Your task to perform on an android device: toggle show notifications on the lock screen Image 0: 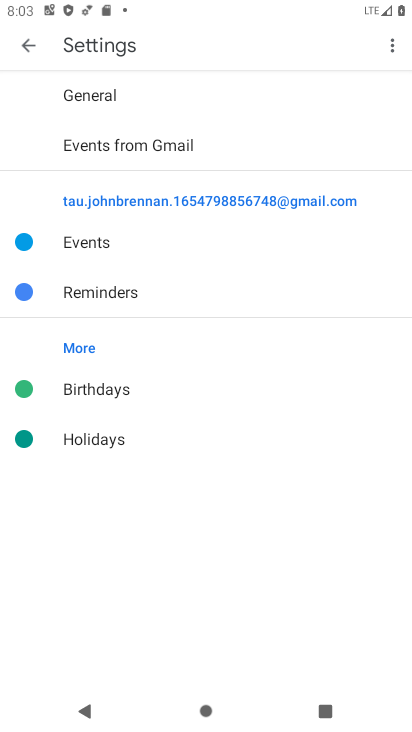
Step 0: press home button
Your task to perform on an android device: toggle show notifications on the lock screen Image 1: 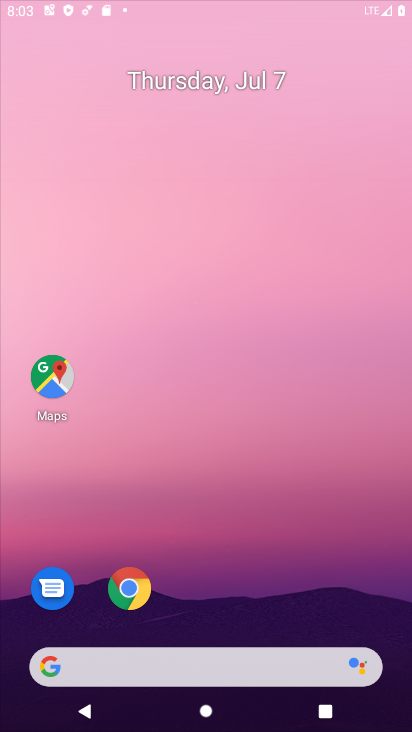
Step 1: drag from (180, 533) to (172, 89)
Your task to perform on an android device: toggle show notifications on the lock screen Image 2: 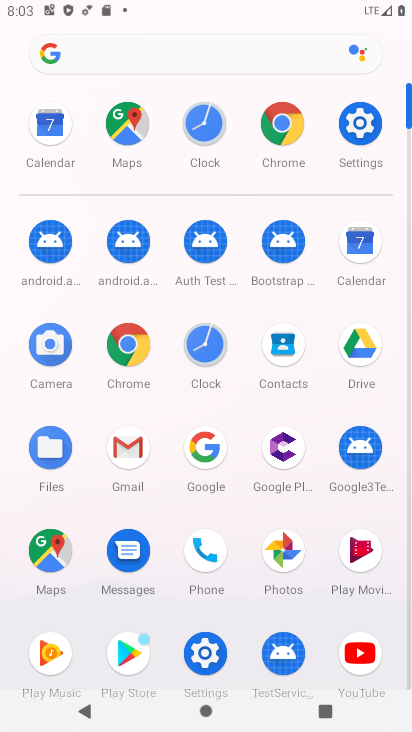
Step 2: click (361, 106)
Your task to perform on an android device: toggle show notifications on the lock screen Image 3: 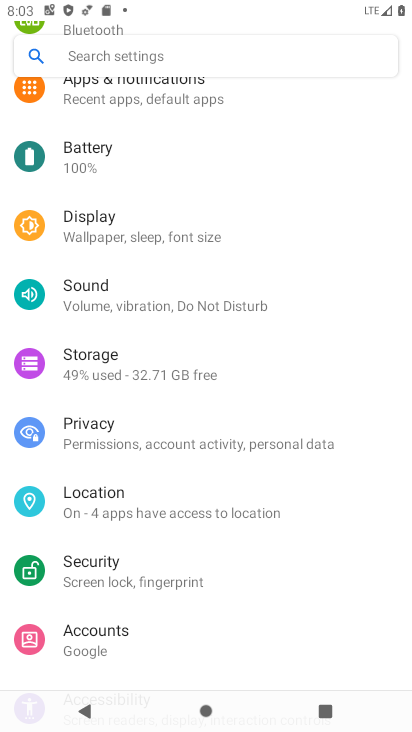
Step 3: drag from (155, 136) to (223, 518)
Your task to perform on an android device: toggle show notifications on the lock screen Image 4: 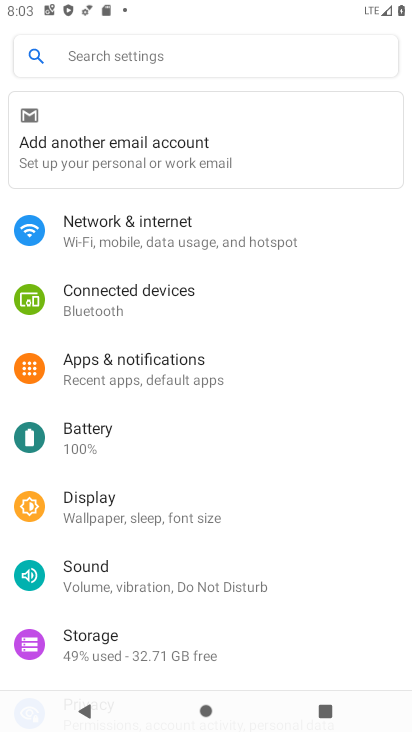
Step 4: click (153, 228)
Your task to perform on an android device: toggle show notifications on the lock screen Image 5: 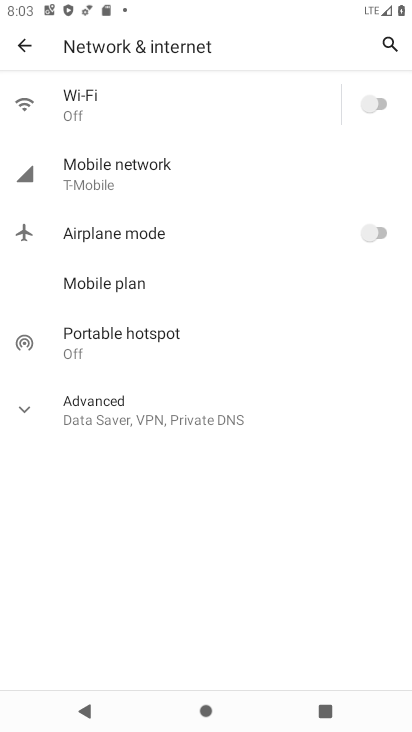
Step 5: click (35, 36)
Your task to perform on an android device: toggle show notifications on the lock screen Image 6: 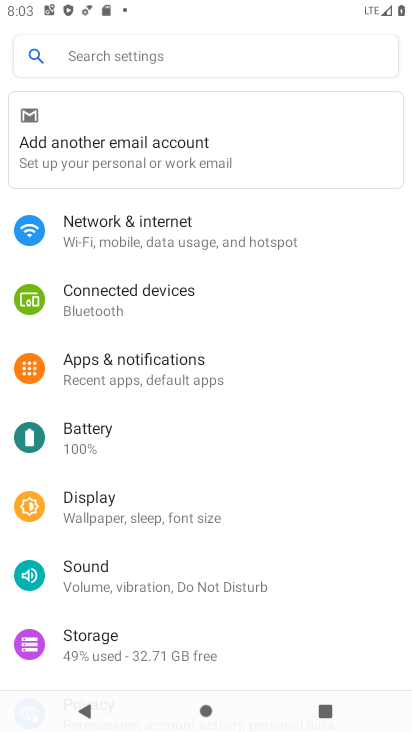
Step 6: click (129, 383)
Your task to perform on an android device: toggle show notifications on the lock screen Image 7: 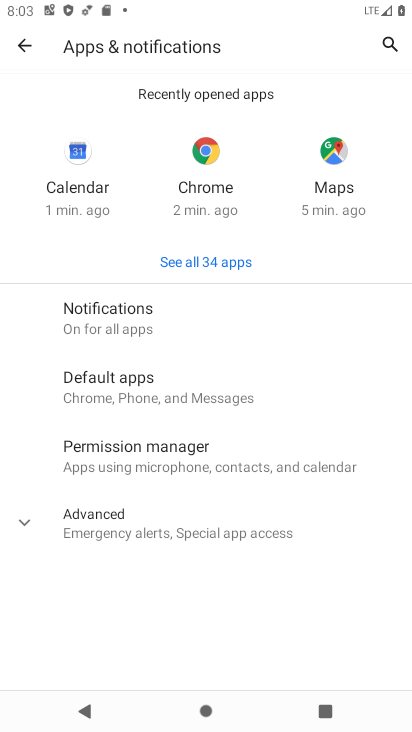
Step 7: click (144, 317)
Your task to perform on an android device: toggle show notifications on the lock screen Image 8: 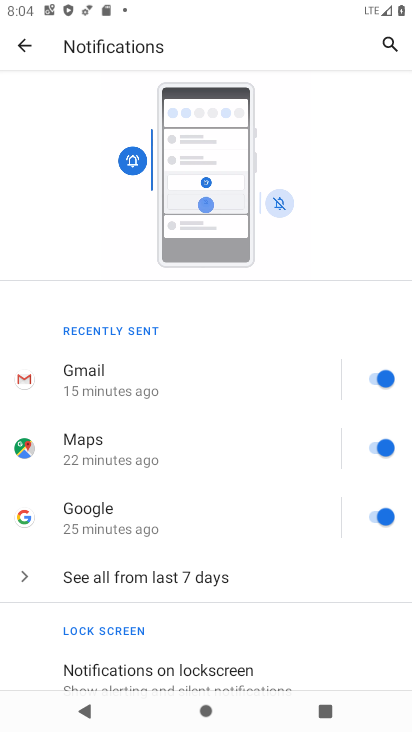
Step 8: drag from (204, 657) to (218, 380)
Your task to perform on an android device: toggle show notifications on the lock screen Image 9: 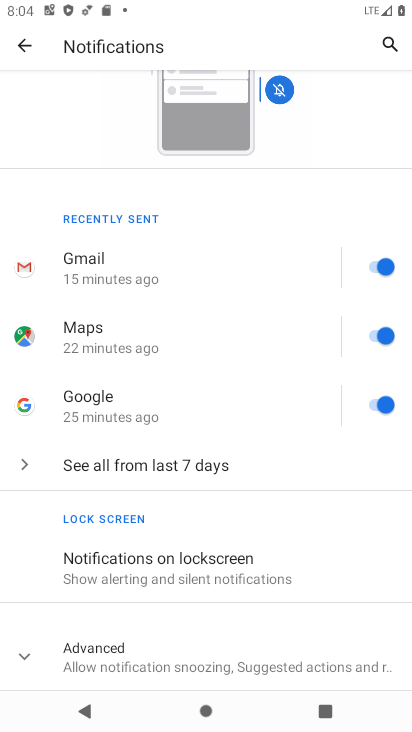
Step 9: click (197, 547)
Your task to perform on an android device: toggle show notifications on the lock screen Image 10: 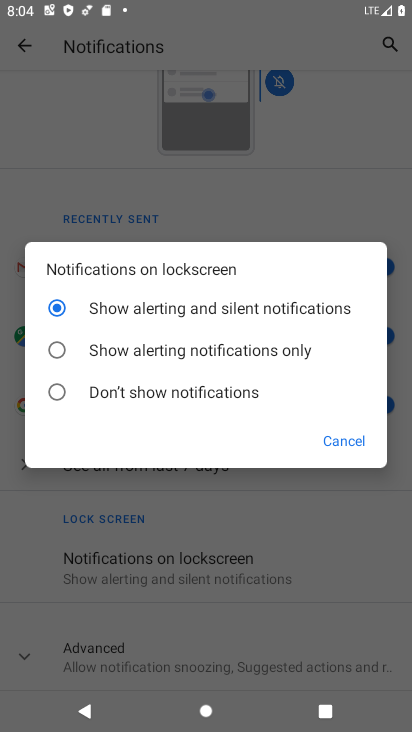
Step 10: click (189, 391)
Your task to perform on an android device: toggle show notifications on the lock screen Image 11: 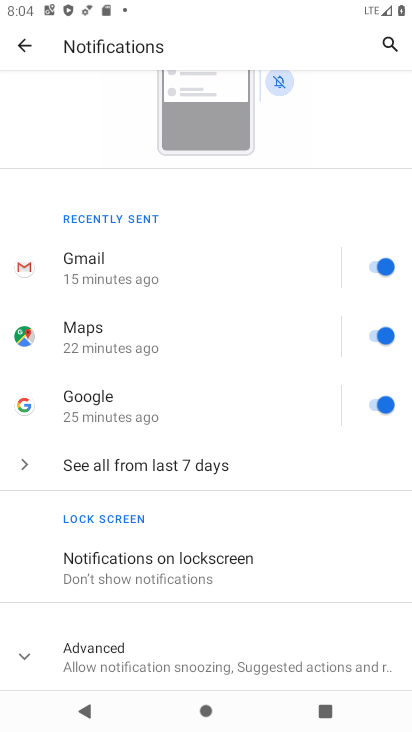
Step 11: task complete